Your task to perform on an android device: open chrome and create a bookmark for the current page Image 0: 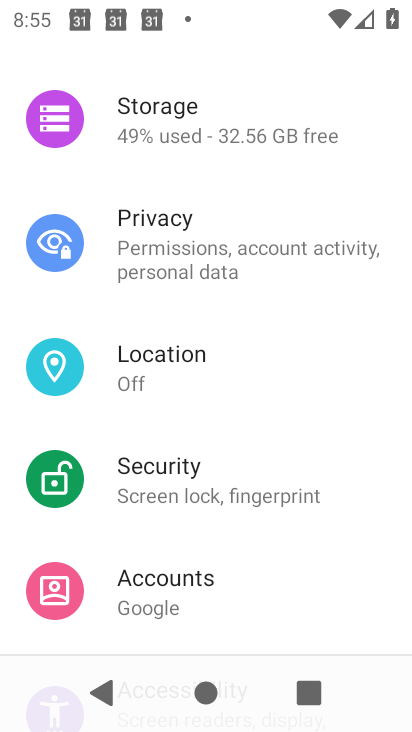
Step 0: press home button
Your task to perform on an android device: open chrome and create a bookmark for the current page Image 1: 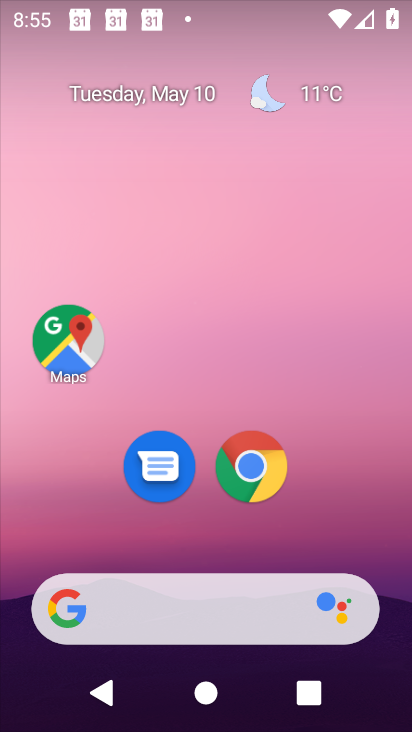
Step 1: click (256, 483)
Your task to perform on an android device: open chrome and create a bookmark for the current page Image 2: 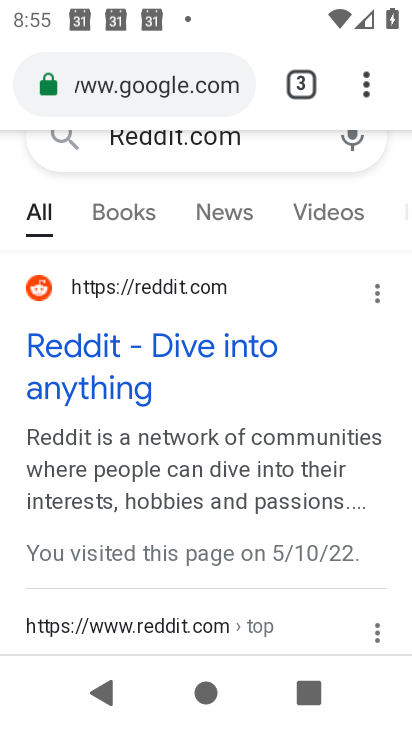
Step 2: click (368, 91)
Your task to perform on an android device: open chrome and create a bookmark for the current page Image 3: 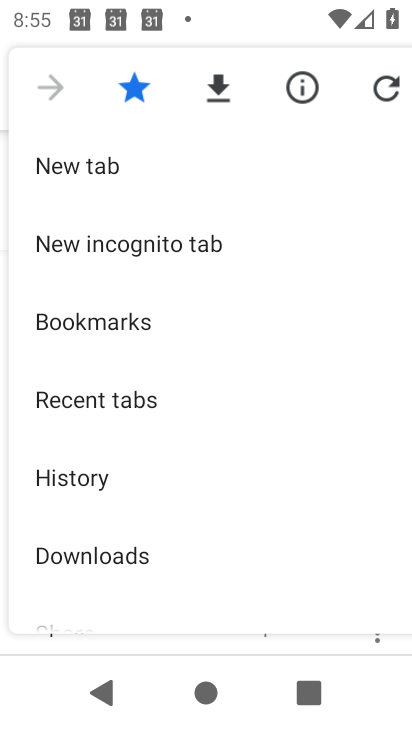
Step 3: task complete